Your task to perform on an android device: toggle location history Image 0: 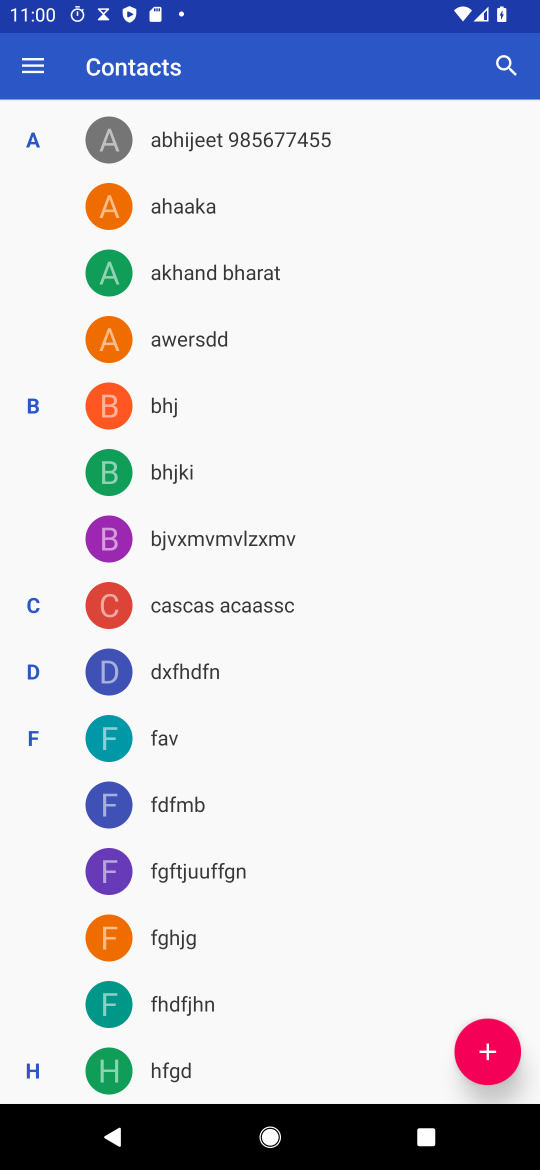
Step 0: press back button
Your task to perform on an android device: toggle location history Image 1: 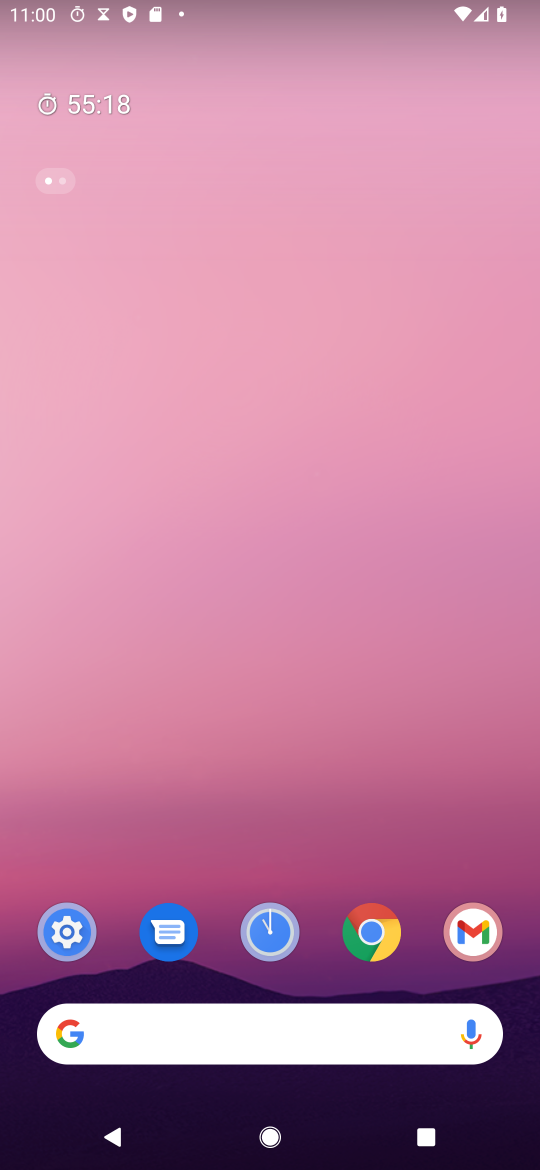
Step 1: drag from (319, 842) to (172, 6)
Your task to perform on an android device: toggle location history Image 2: 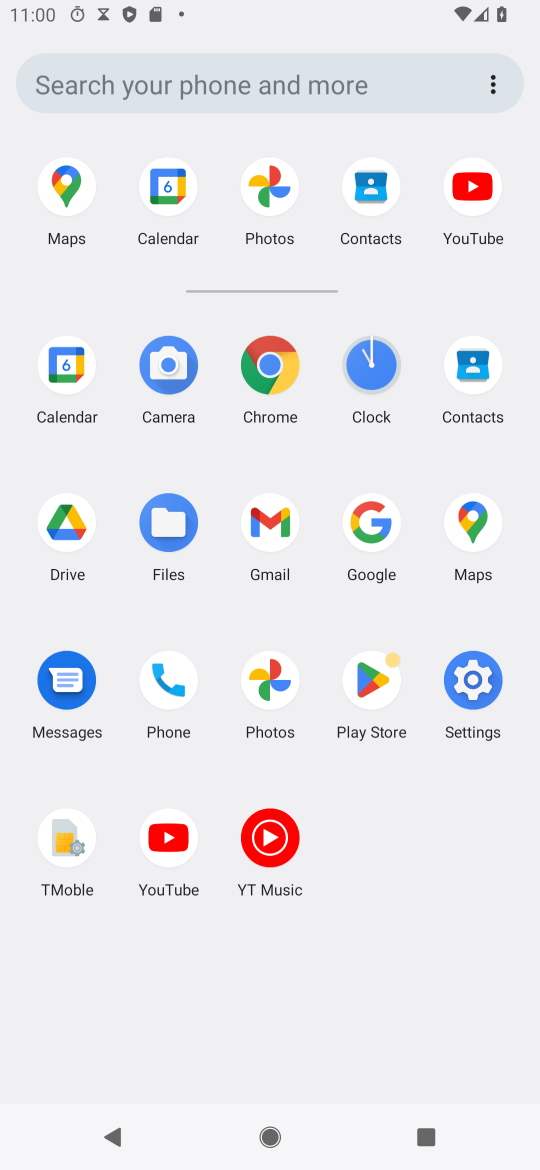
Step 2: click (71, 175)
Your task to perform on an android device: toggle location history Image 3: 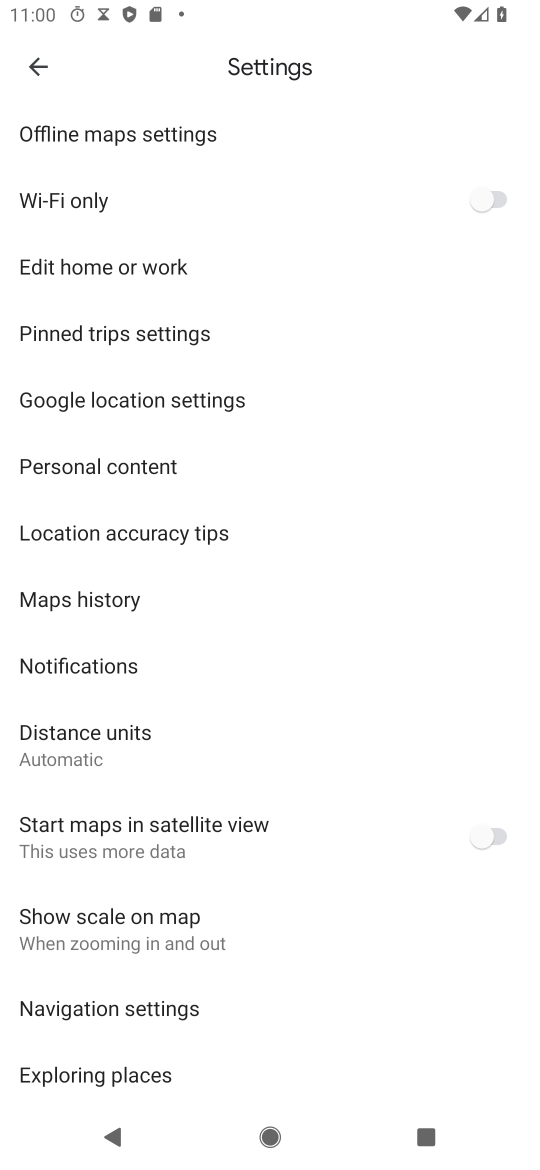
Step 3: task complete